Your task to perform on an android device: set default search engine in the chrome app Image 0: 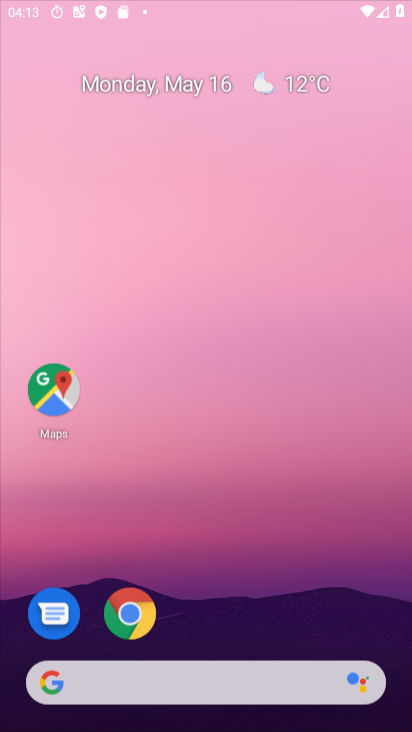
Step 0: click (133, 32)
Your task to perform on an android device: set default search engine in the chrome app Image 1: 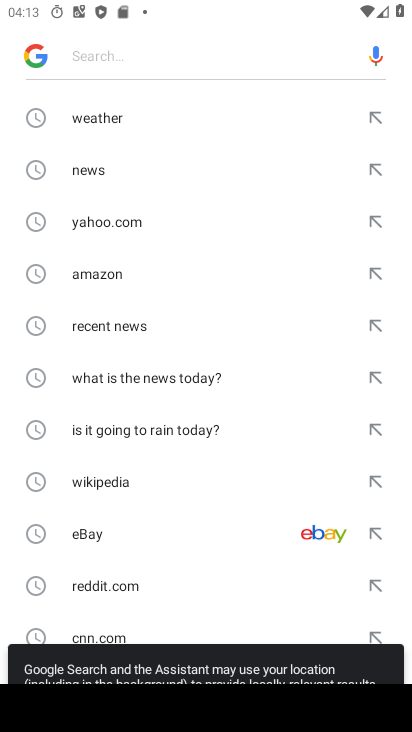
Step 1: press back button
Your task to perform on an android device: set default search engine in the chrome app Image 2: 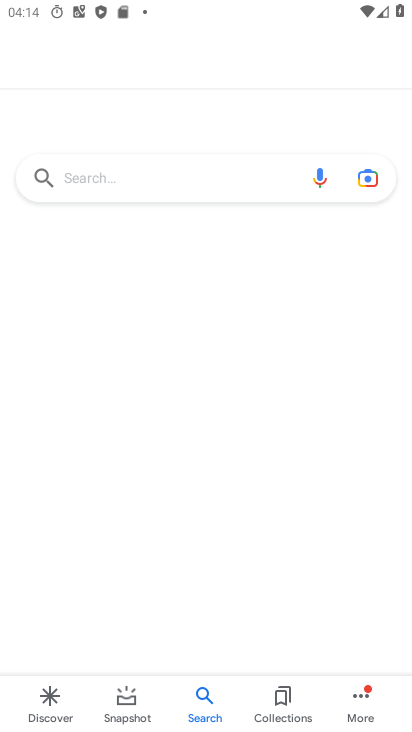
Step 2: press home button
Your task to perform on an android device: set default search engine in the chrome app Image 3: 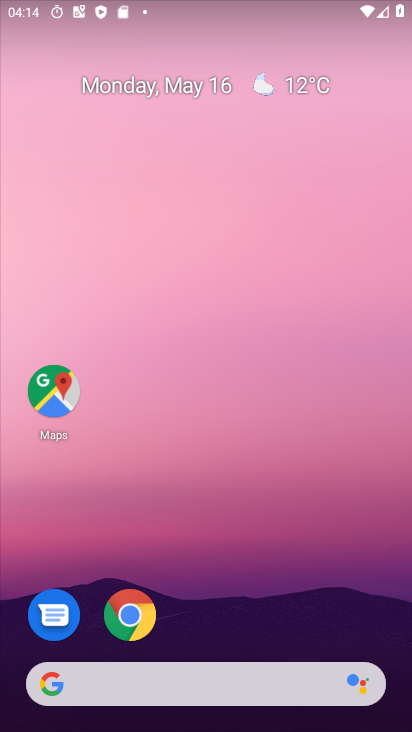
Step 3: drag from (229, 649) to (47, 0)
Your task to perform on an android device: set default search engine in the chrome app Image 4: 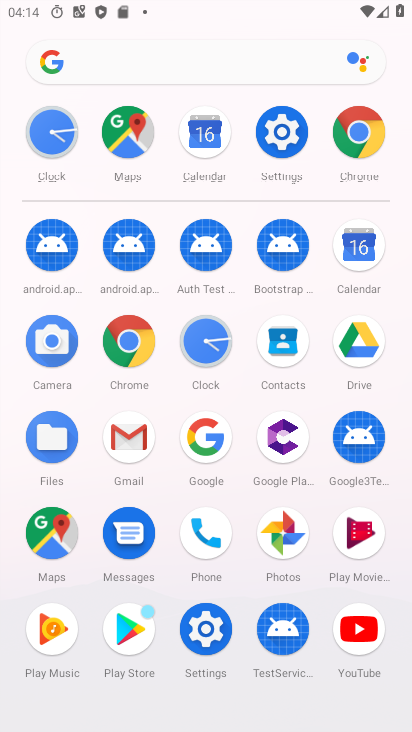
Step 4: click (369, 128)
Your task to perform on an android device: set default search engine in the chrome app Image 5: 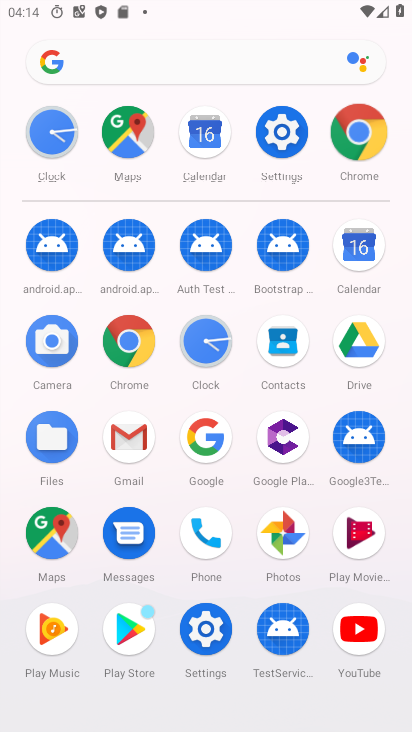
Step 5: click (369, 128)
Your task to perform on an android device: set default search engine in the chrome app Image 6: 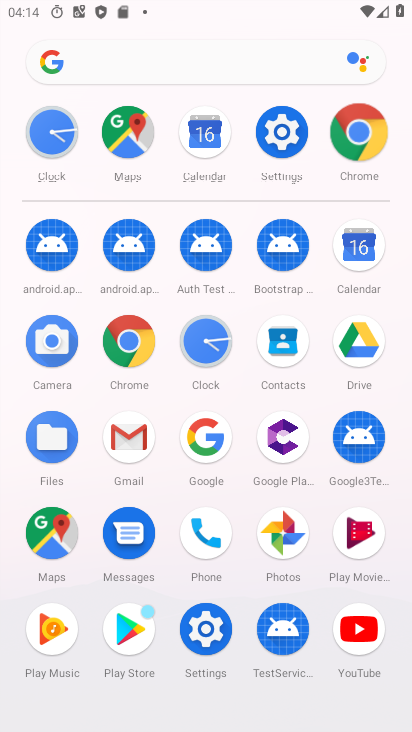
Step 6: click (369, 128)
Your task to perform on an android device: set default search engine in the chrome app Image 7: 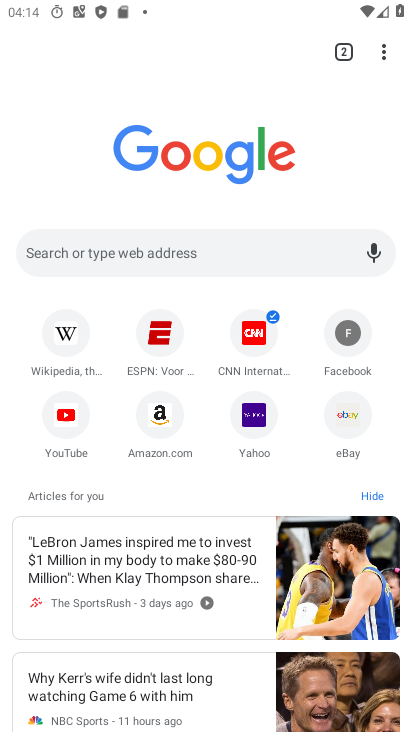
Step 7: drag from (382, 51) to (197, 162)
Your task to perform on an android device: set default search engine in the chrome app Image 8: 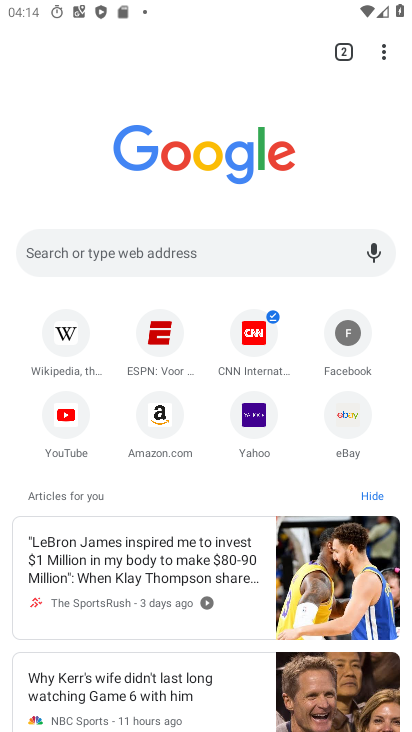
Step 8: click (198, 163)
Your task to perform on an android device: set default search engine in the chrome app Image 9: 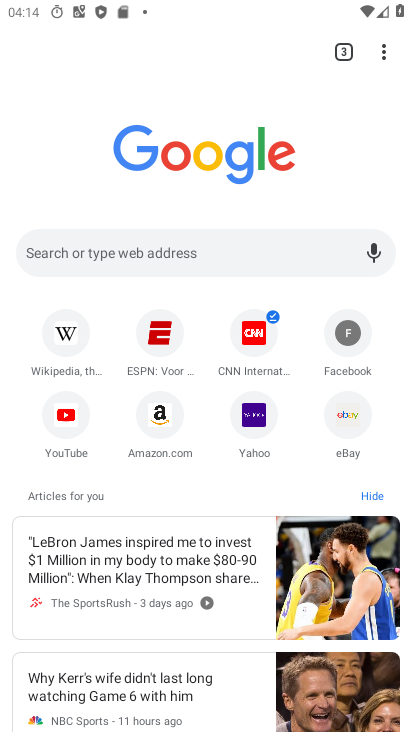
Step 9: drag from (387, 55) to (186, 497)
Your task to perform on an android device: set default search engine in the chrome app Image 10: 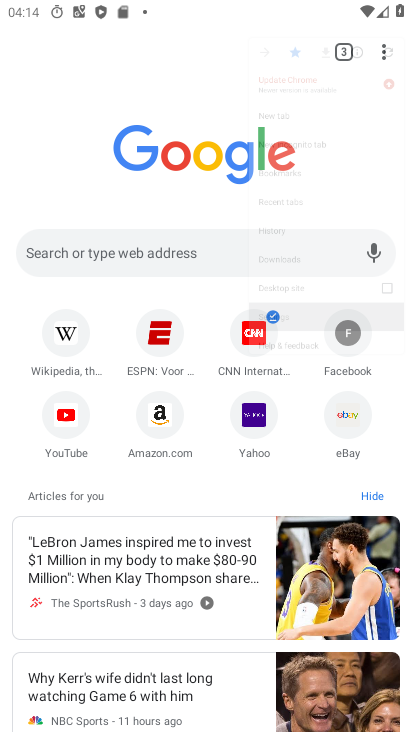
Step 10: click (186, 502)
Your task to perform on an android device: set default search engine in the chrome app Image 11: 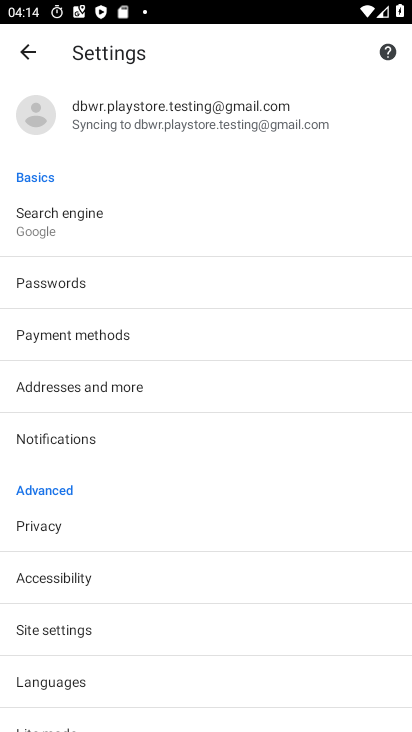
Step 11: click (42, 226)
Your task to perform on an android device: set default search engine in the chrome app Image 12: 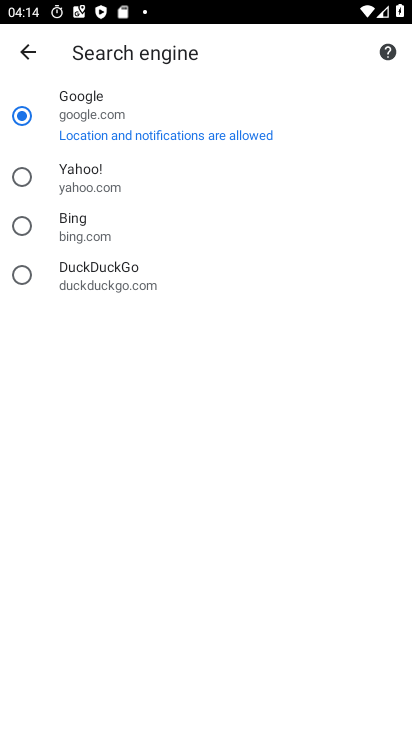
Step 12: task complete